Your task to perform on an android device: Open Chrome and go to settings Image 0: 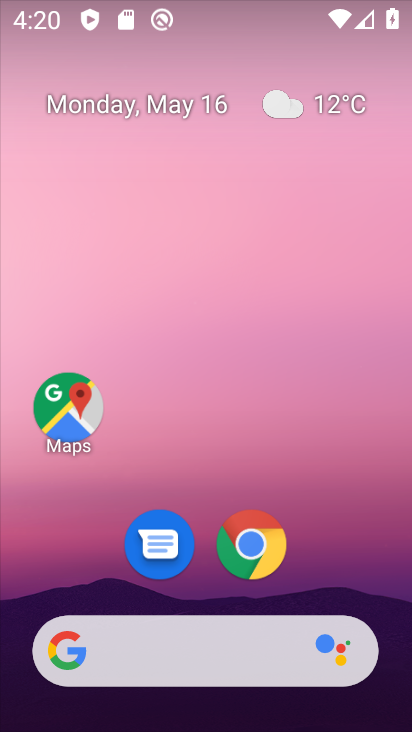
Step 0: click (252, 542)
Your task to perform on an android device: Open Chrome and go to settings Image 1: 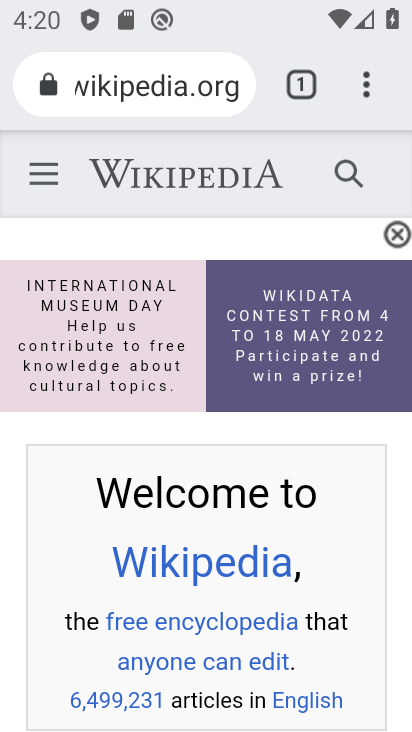
Step 1: click (364, 82)
Your task to perform on an android device: Open Chrome and go to settings Image 2: 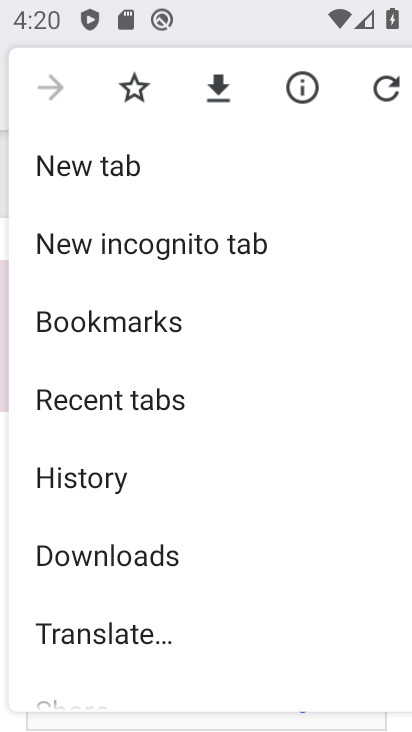
Step 2: drag from (150, 519) to (193, 417)
Your task to perform on an android device: Open Chrome and go to settings Image 3: 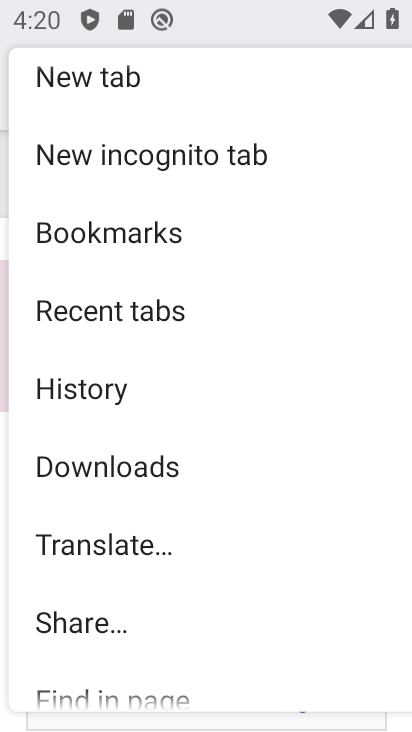
Step 3: drag from (161, 586) to (192, 430)
Your task to perform on an android device: Open Chrome and go to settings Image 4: 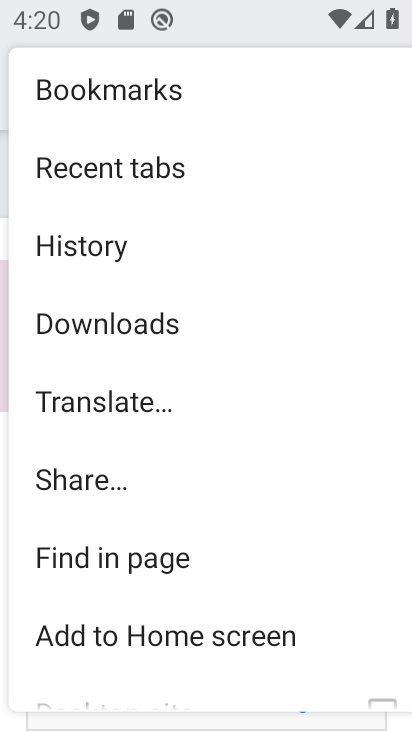
Step 4: drag from (151, 584) to (203, 462)
Your task to perform on an android device: Open Chrome and go to settings Image 5: 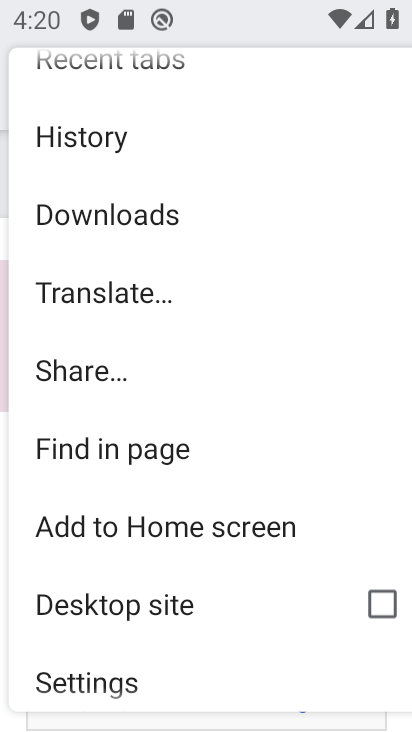
Step 5: drag from (133, 634) to (206, 508)
Your task to perform on an android device: Open Chrome and go to settings Image 6: 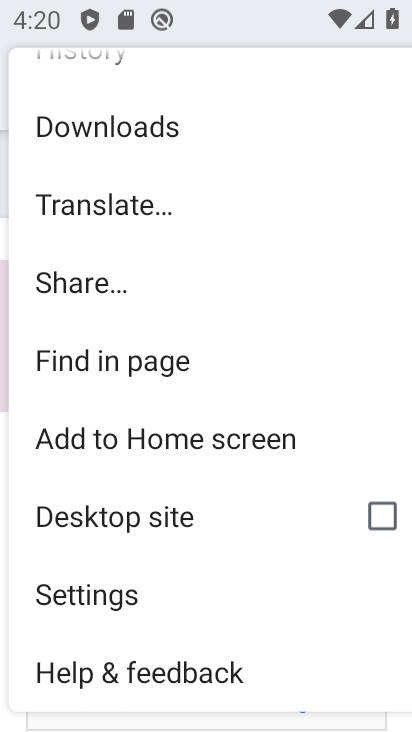
Step 6: click (101, 597)
Your task to perform on an android device: Open Chrome and go to settings Image 7: 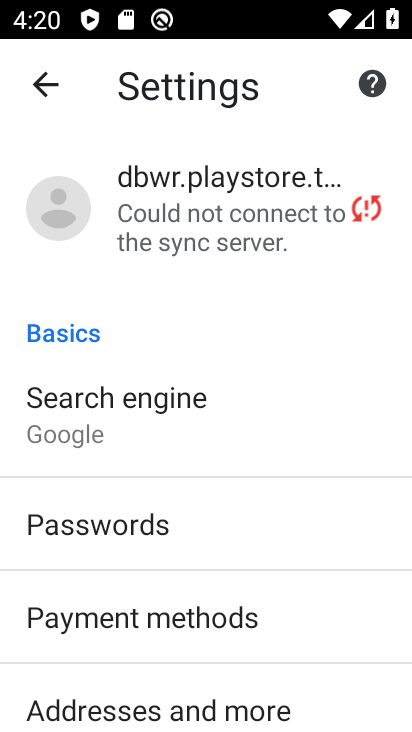
Step 7: task complete